Your task to perform on an android device: What's the weather going to be this weekend? Image 0: 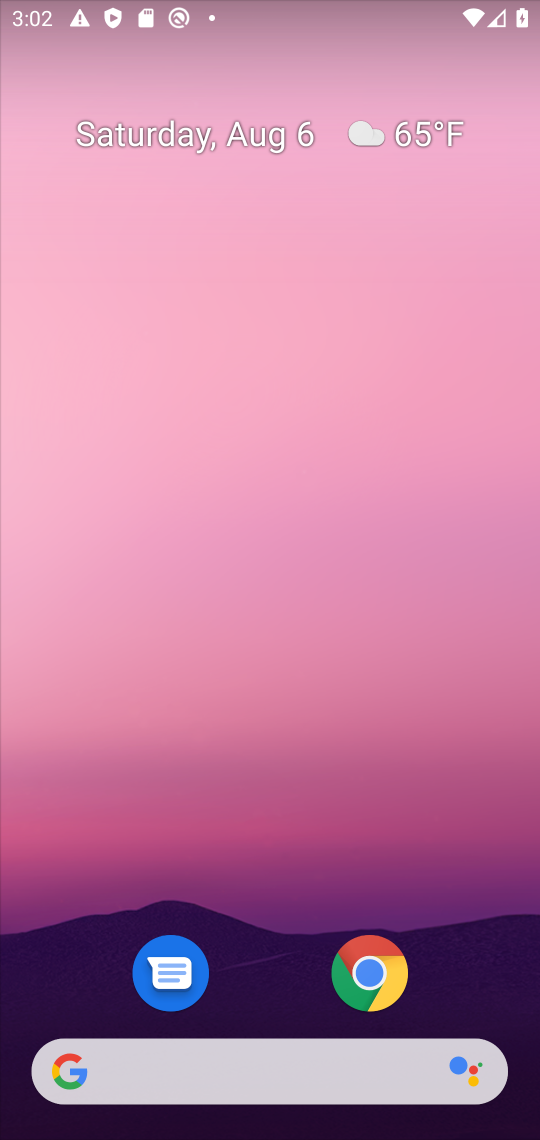
Step 0: click (236, 1051)
Your task to perform on an android device: What's the weather going to be this weekend? Image 1: 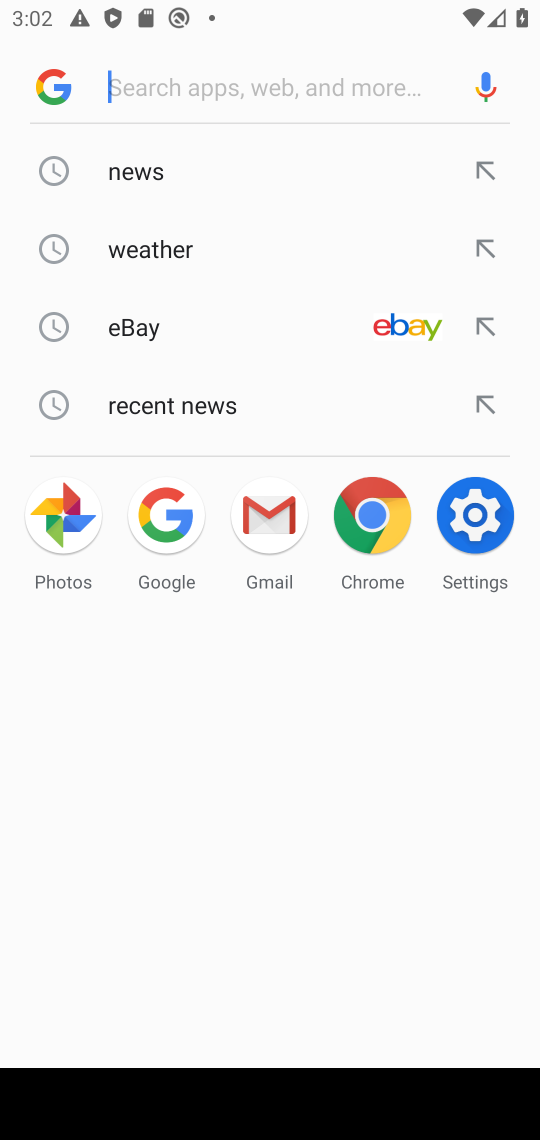
Step 1: type "what's the weather going to be this weekend"
Your task to perform on an android device: What's the weather going to be this weekend? Image 2: 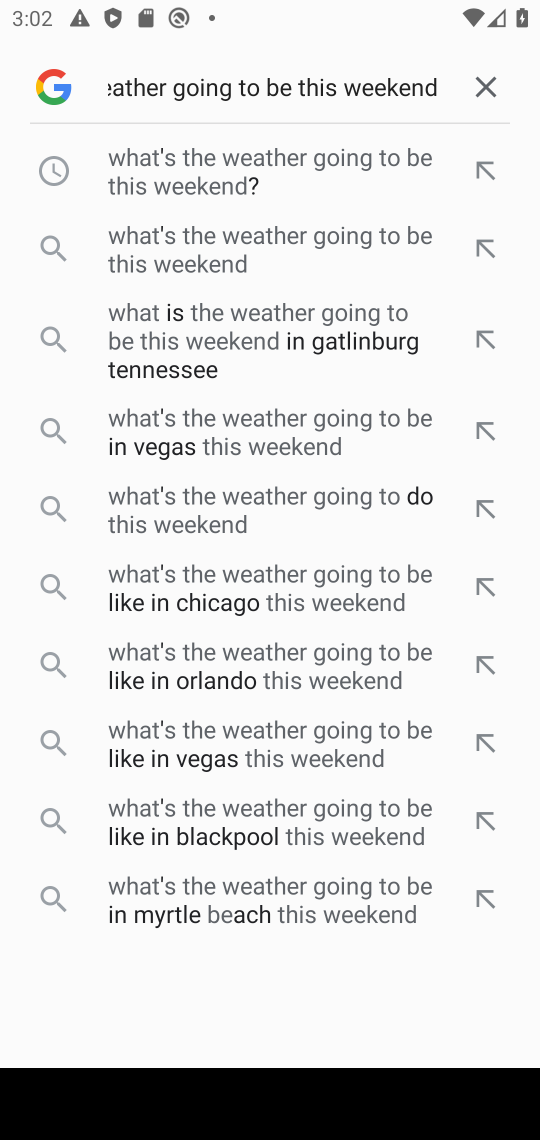
Step 2: click (255, 177)
Your task to perform on an android device: What's the weather going to be this weekend? Image 3: 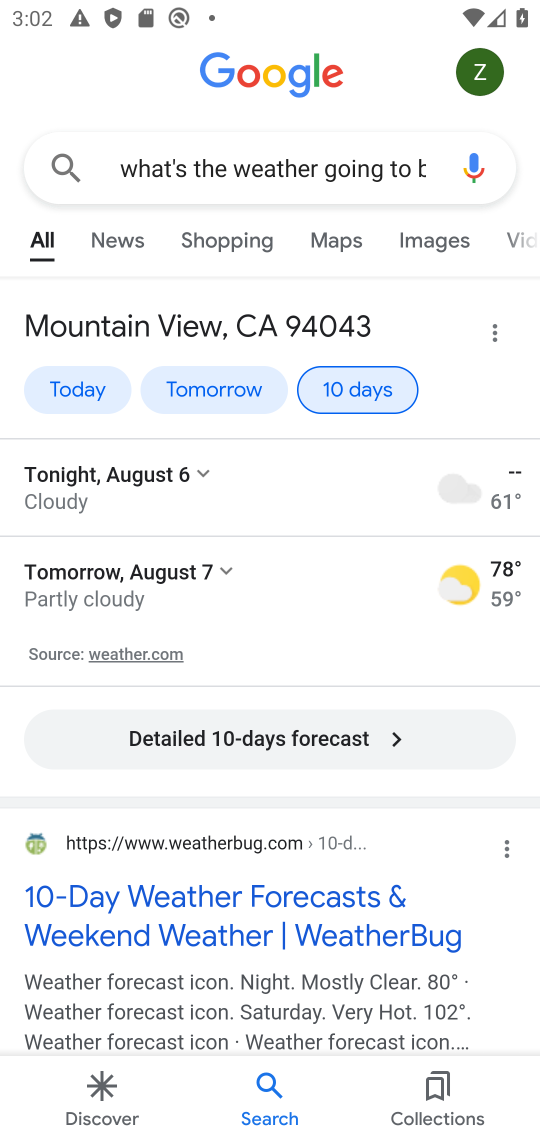
Step 3: task complete